Your task to perform on an android device: change alarm snooze length Image 0: 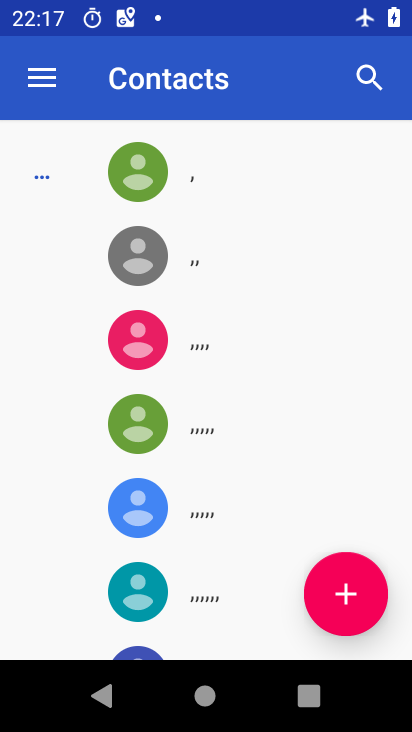
Step 0: press home button
Your task to perform on an android device: change alarm snooze length Image 1: 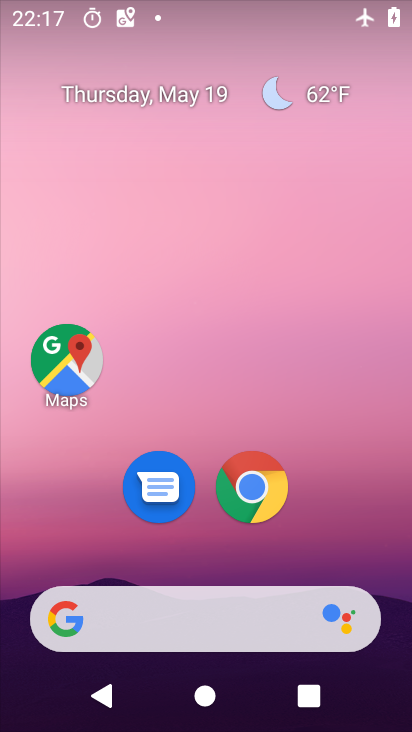
Step 1: drag from (323, 563) to (233, 223)
Your task to perform on an android device: change alarm snooze length Image 2: 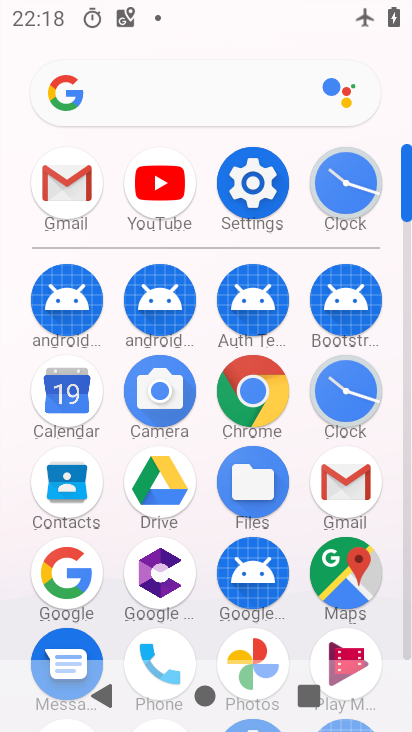
Step 2: click (347, 187)
Your task to perform on an android device: change alarm snooze length Image 3: 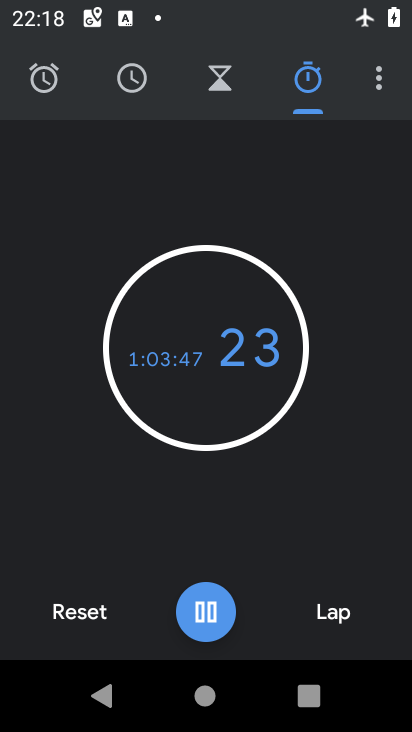
Step 3: click (390, 75)
Your task to perform on an android device: change alarm snooze length Image 4: 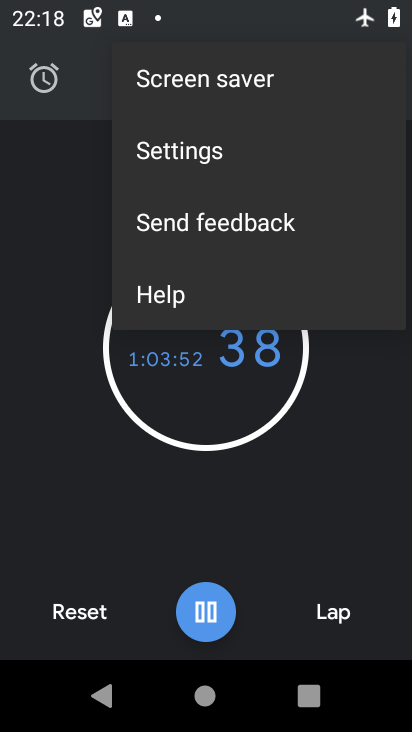
Step 4: click (219, 159)
Your task to perform on an android device: change alarm snooze length Image 5: 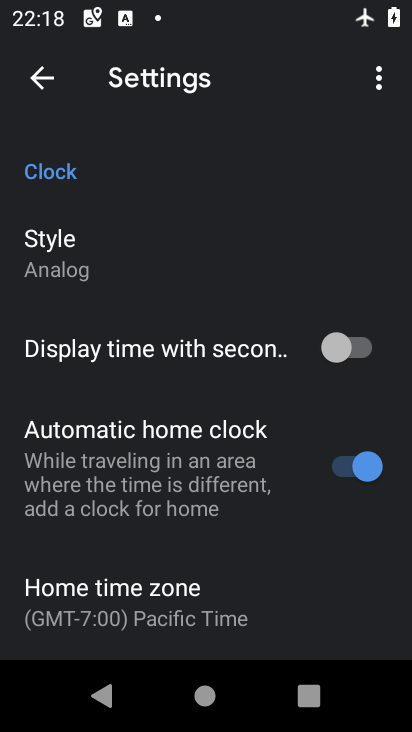
Step 5: drag from (279, 579) to (274, 189)
Your task to perform on an android device: change alarm snooze length Image 6: 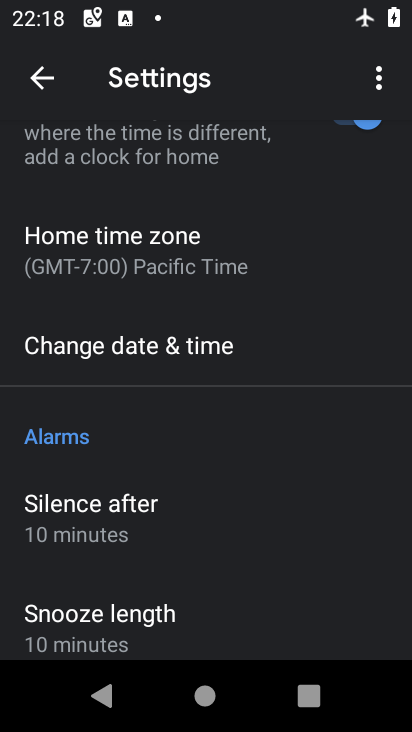
Step 6: drag from (266, 554) to (286, 253)
Your task to perform on an android device: change alarm snooze length Image 7: 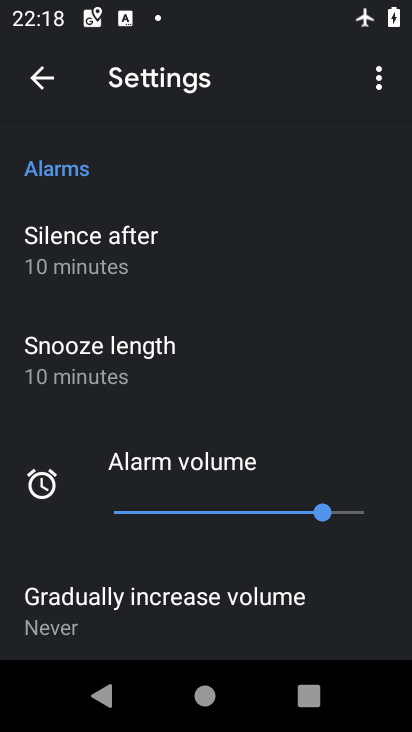
Step 7: click (147, 349)
Your task to perform on an android device: change alarm snooze length Image 8: 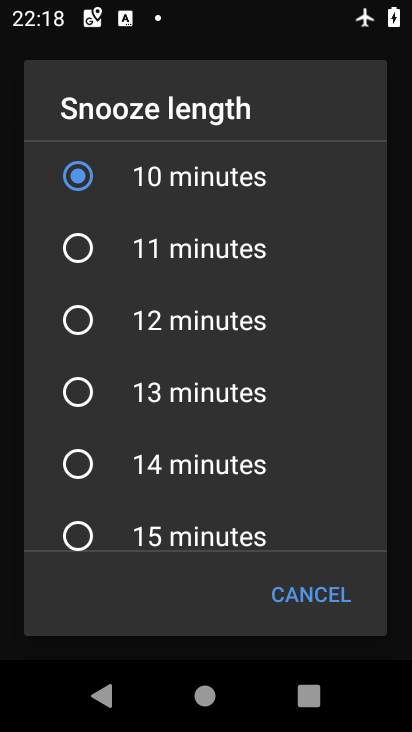
Step 8: drag from (173, 222) to (203, 434)
Your task to perform on an android device: change alarm snooze length Image 9: 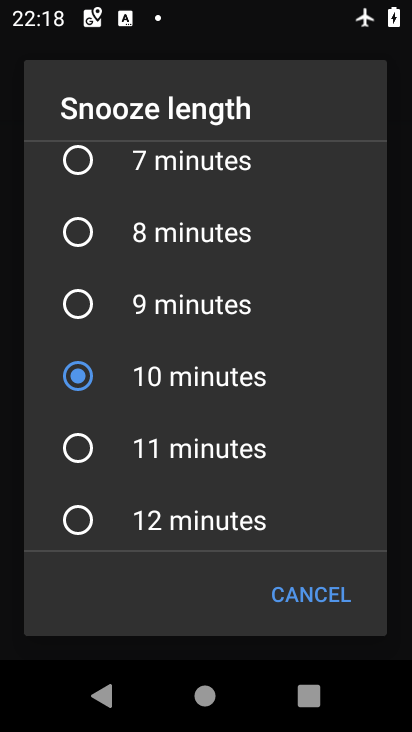
Step 9: click (79, 235)
Your task to perform on an android device: change alarm snooze length Image 10: 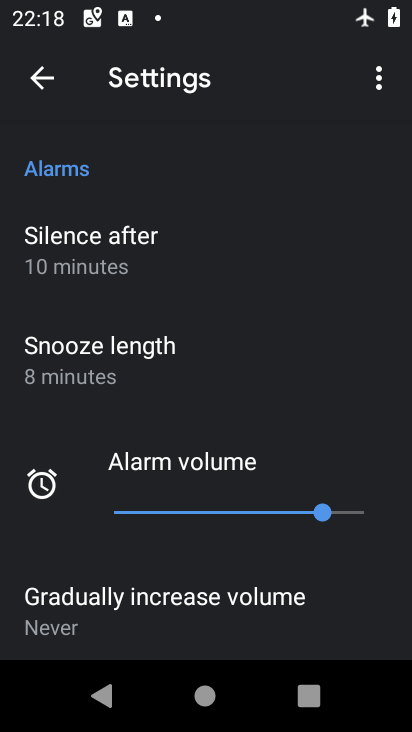
Step 10: task complete